Your task to perform on an android device: Show me productivity apps on the Play Store Image 0: 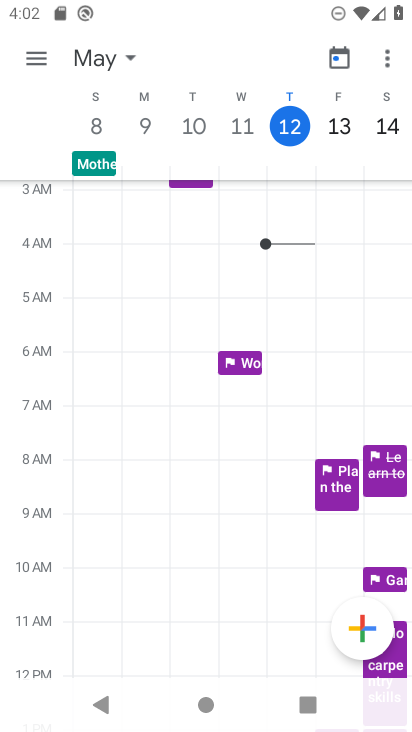
Step 0: press home button
Your task to perform on an android device: Show me productivity apps on the Play Store Image 1: 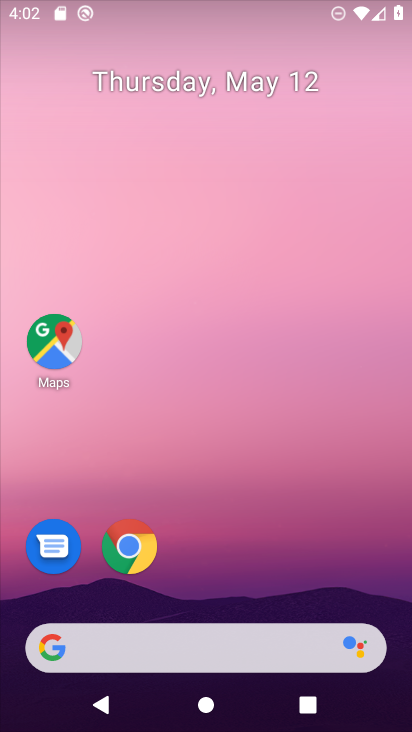
Step 1: drag from (207, 561) to (257, 248)
Your task to perform on an android device: Show me productivity apps on the Play Store Image 2: 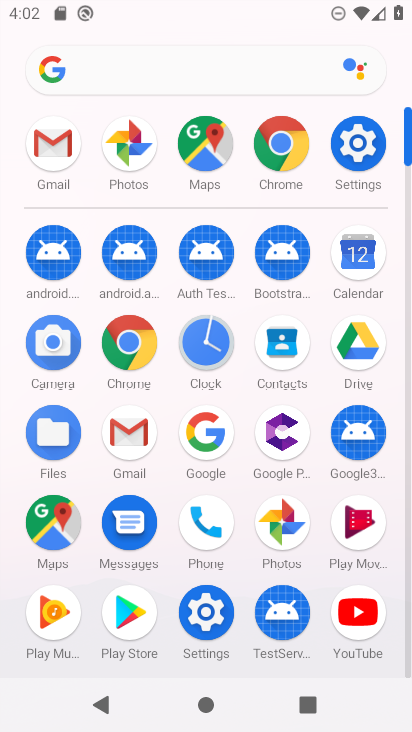
Step 2: click (134, 609)
Your task to perform on an android device: Show me productivity apps on the Play Store Image 3: 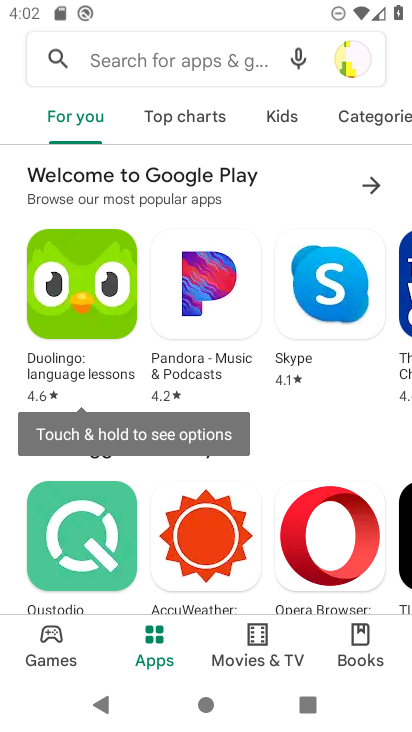
Step 3: click (167, 619)
Your task to perform on an android device: Show me productivity apps on the Play Store Image 4: 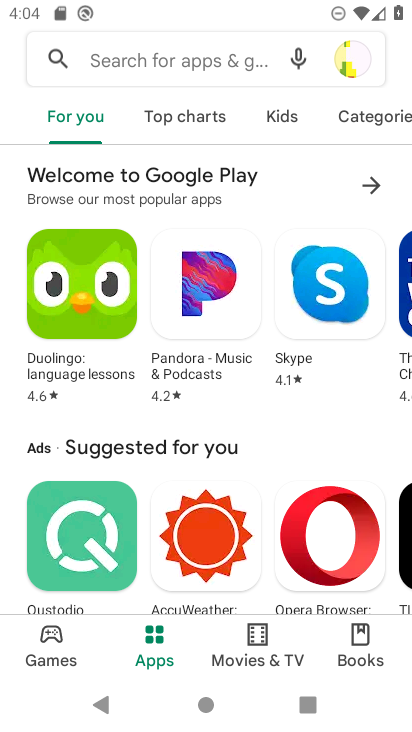
Step 4: task complete